Your task to perform on an android device: check android version Image 0: 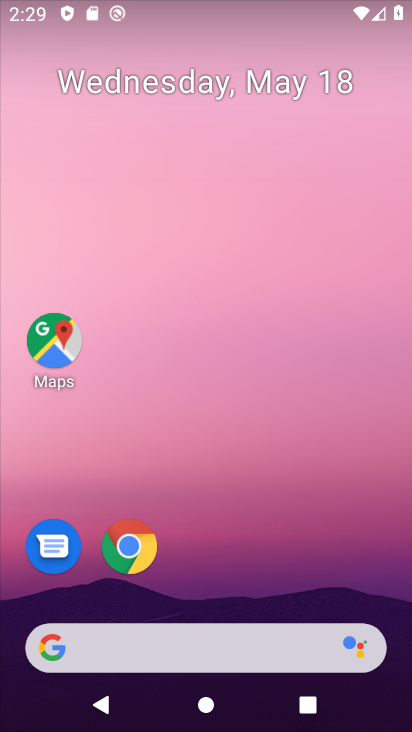
Step 0: drag from (221, 727) to (222, 145)
Your task to perform on an android device: check android version Image 1: 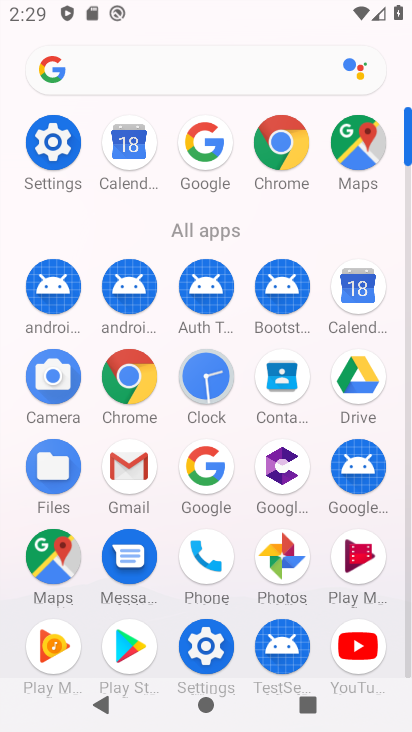
Step 1: click (46, 140)
Your task to perform on an android device: check android version Image 2: 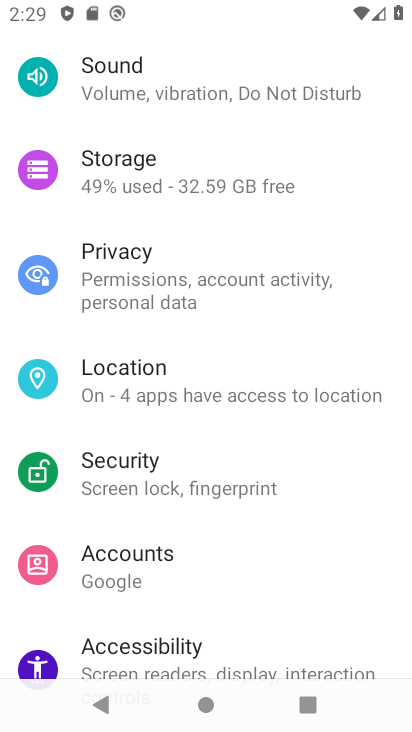
Step 2: drag from (121, 644) to (141, 160)
Your task to perform on an android device: check android version Image 3: 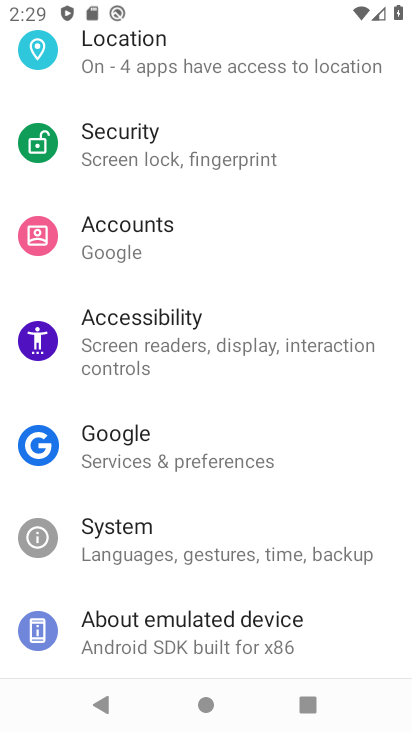
Step 3: drag from (150, 637) to (160, 179)
Your task to perform on an android device: check android version Image 4: 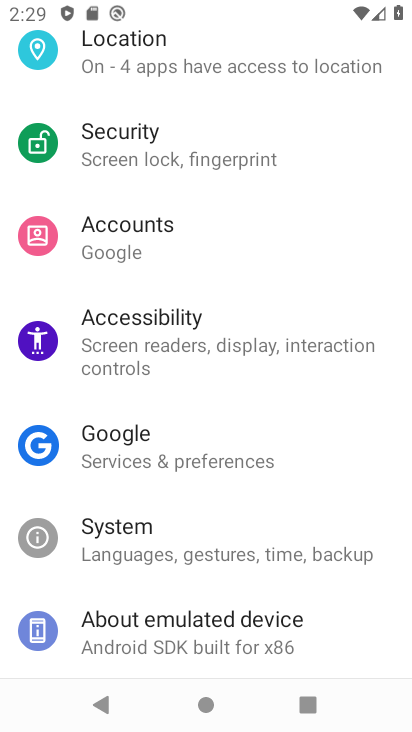
Step 4: click (169, 615)
Your task to perform on an android device: check android version Image 5: 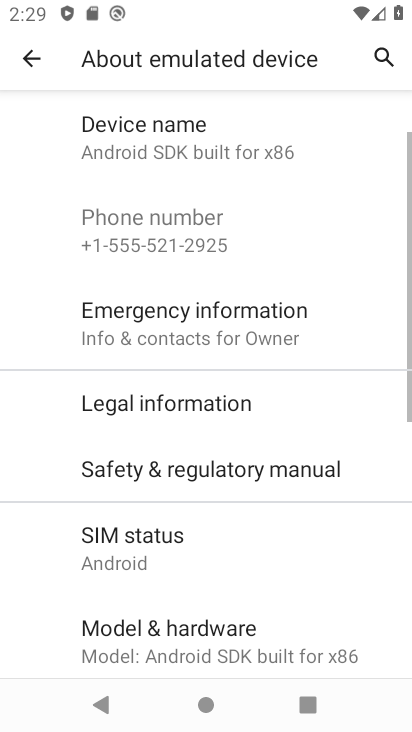
Step 5: drag from (175, 661) to (175, 139)
Your task to perform on an android device: check android version Image 6: 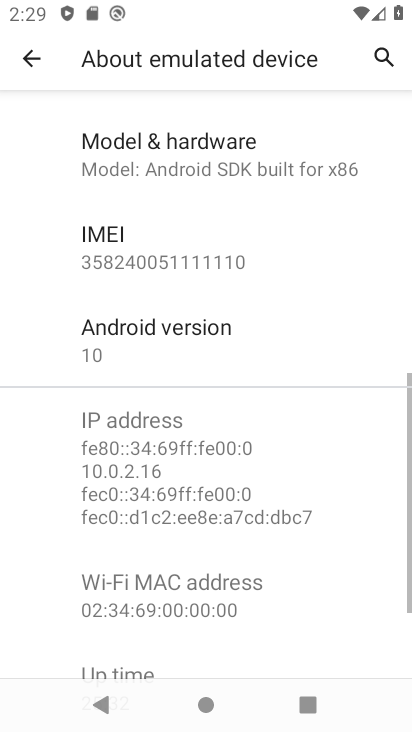
Step 6: drag from (167, 610) to (169, 178)
Your task to perform on an android device: check android version Image 7: 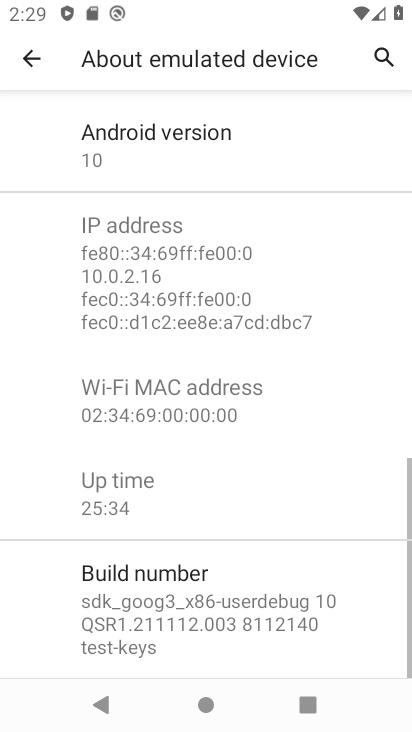
Step 7: click (161, 144)
Your task to perform on an android device: check android version Image 8: 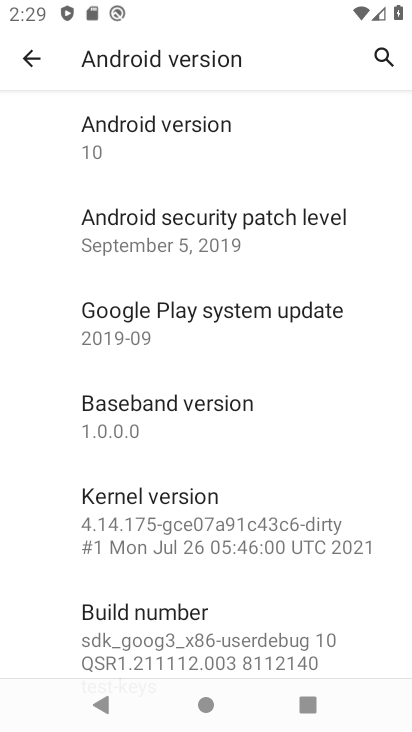
Step 8: task complete